Your task to perform on an android device: move a message to another label in the gmail app Image 0: 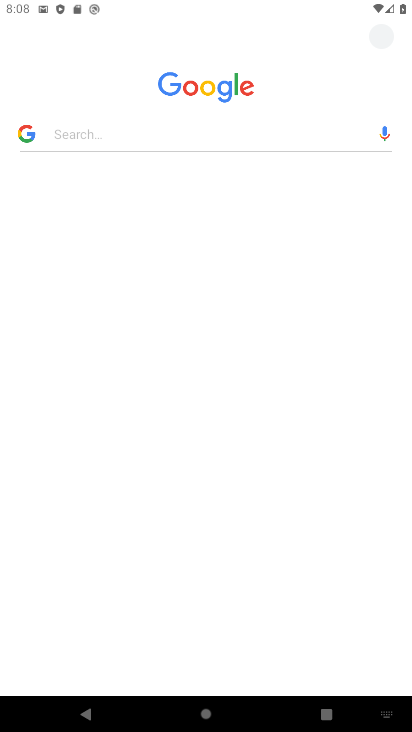
Step 0: press home button
Your task to perform on an android device: move a message to another label in the gmail app Image 1: 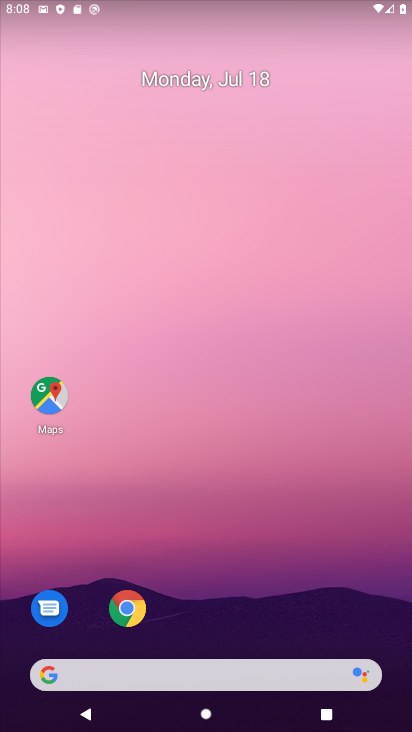
Step 1: drag from (229, 596) to (227, 153)
Your task to perform on an android device: move a message to another label in the gmail app Image 2: 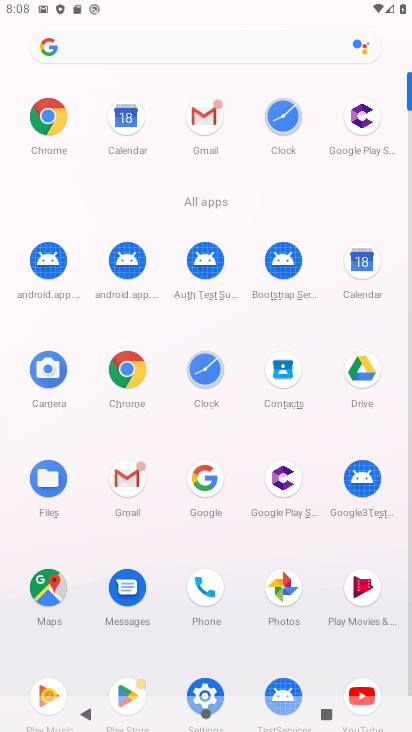
Step 2: click (210, 105)
Your task to perform on an android device: move a message to another label in the gmail app Image 3: 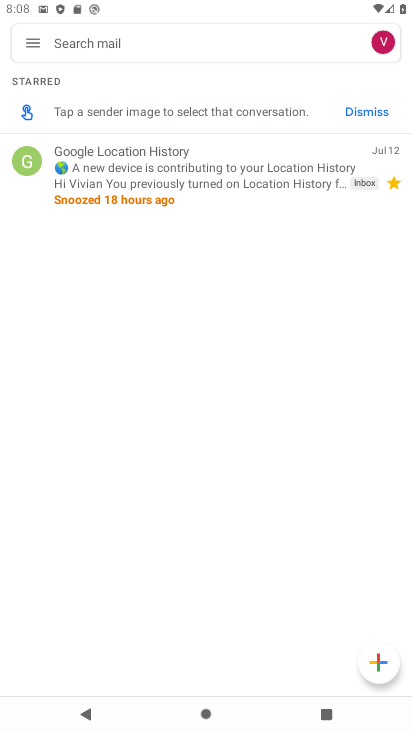
Step 3: click (34, 39)
Your task to perform on an android device: move a message to another label in the gmail app Image 4: 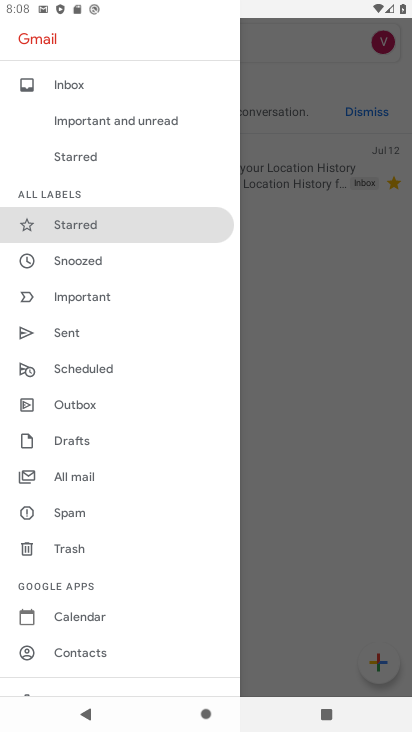
Step 4: click (76, 484)
Your task to perform on an android device: move a message to another label in the gmail app Image 5: 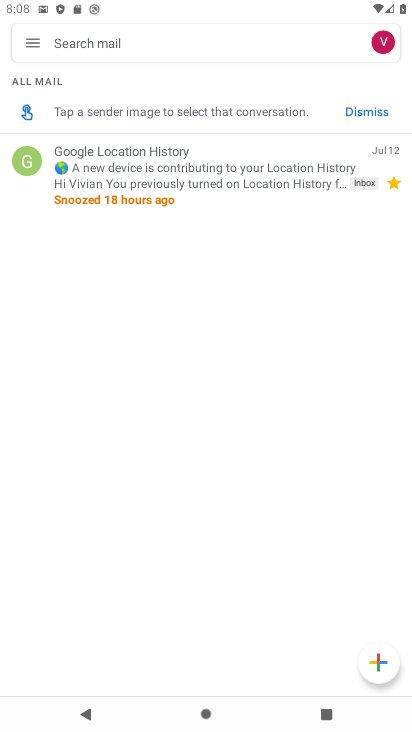
Step 5: click (218, 160)
Your task to perform on an android device: move a message to another label in the gmail app Image 6: 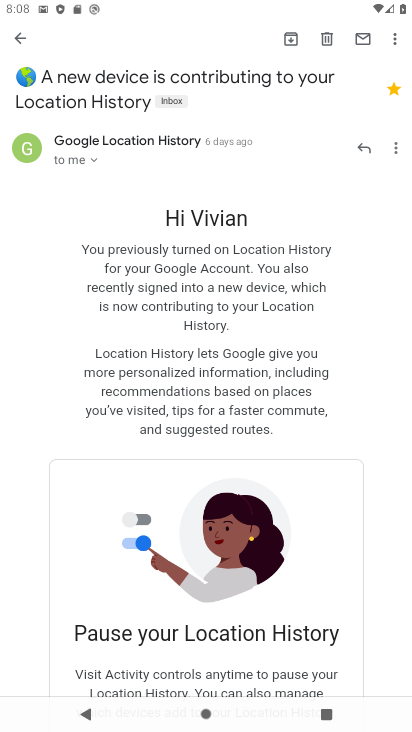
Step 6: click (170, 97)
Your task to perform on an android device: move a message to another label in the gmail app Image 7: 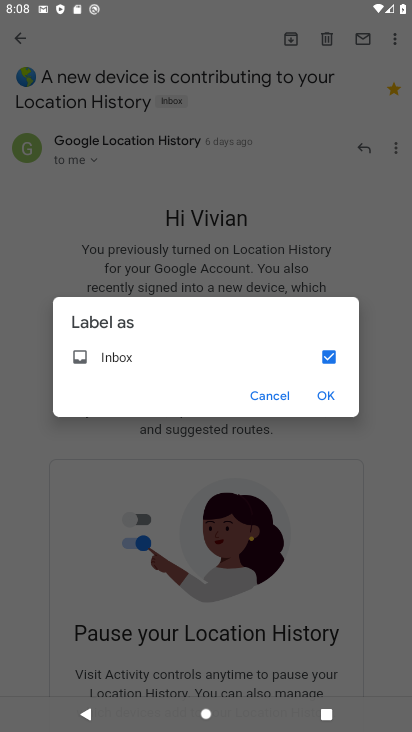
Step 7: click (347, 346)
Your task to perform on an android device: move a message to another label in the gmail app Image 8: 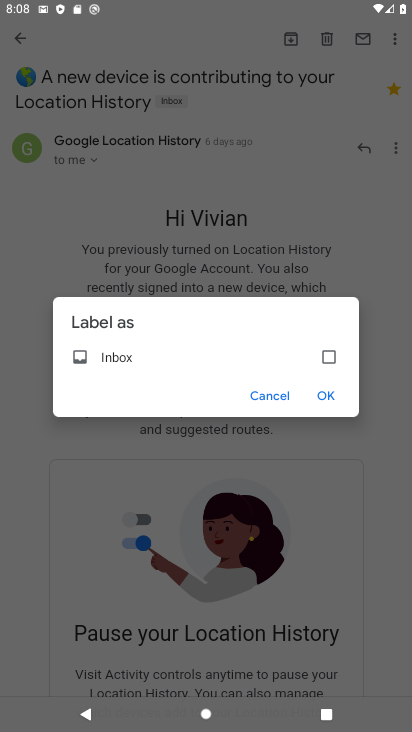
Step 8: click (326, 385)
Your task to perform on an android device: move a message to another label in the gmail app Image 9: 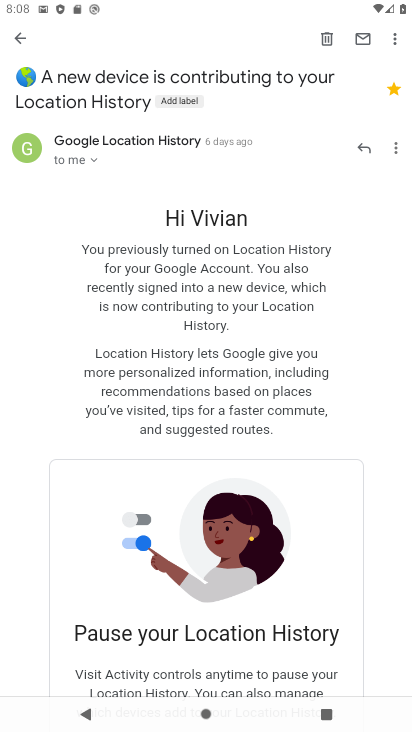
Step 9: task complete